Your task to perform on an android device: turn off javascript in the chrome app Image 0: 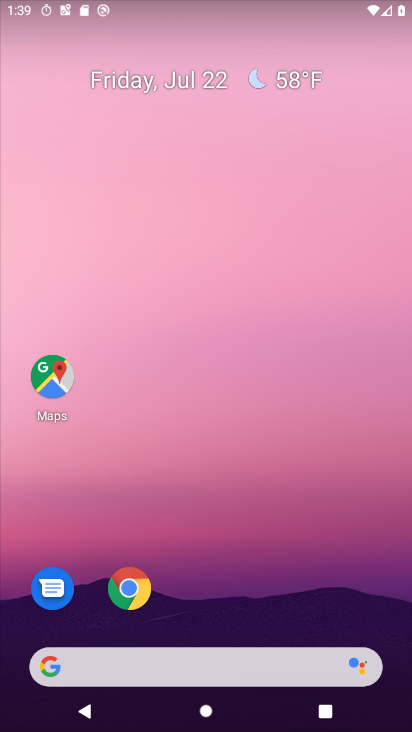
Step 0: press home button
Your task to perform on an android device: turn off javascript in the chrome app Image 1: 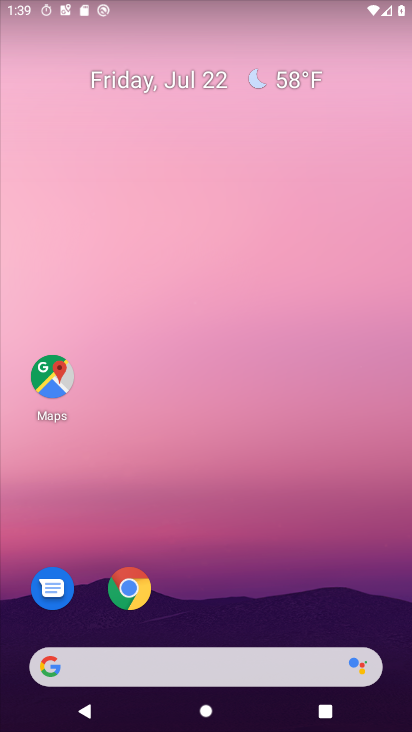
Step 1: drag from (286, 596) to (252, 283)
Your task to perform on an android device: turn off javascript in the chrome app Image 2: 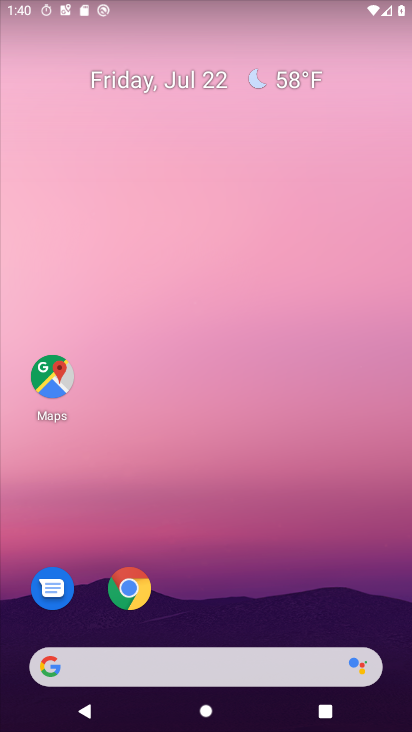
Step 2: drag from (301, 538) to (339, 35)
Your task to perform on an android device: turn off javascript in the chrome app Image 3: 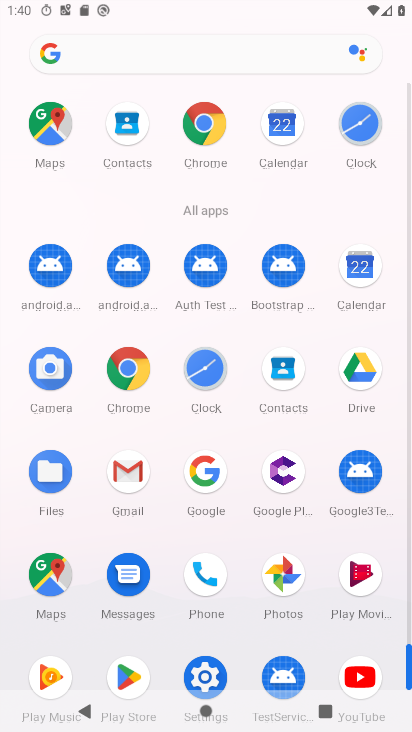
Step 3: click (127, 377)
Your task to perform on an android device: turn off javascript in the chrome app Image 4: 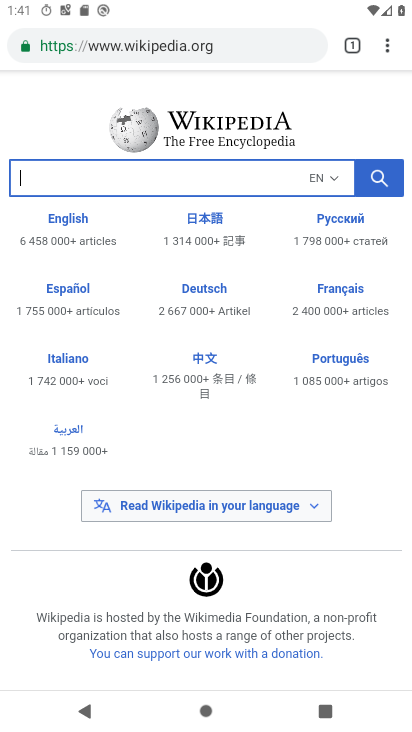
Step 4: drag from (376, 54) to (202, 552)
Your task to perform on an android device: turn off javascript in the chrome app Image 5: 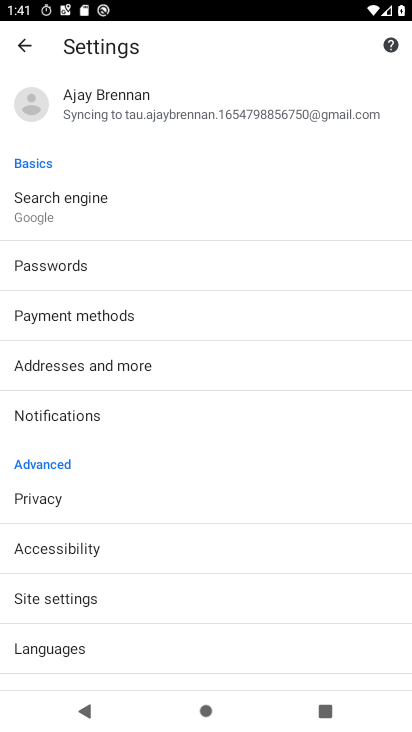
Step 5: drag from (100, 591) to (138, 355)
Your task to perform on an android device: turn off javascript in the chrome app Image 6: 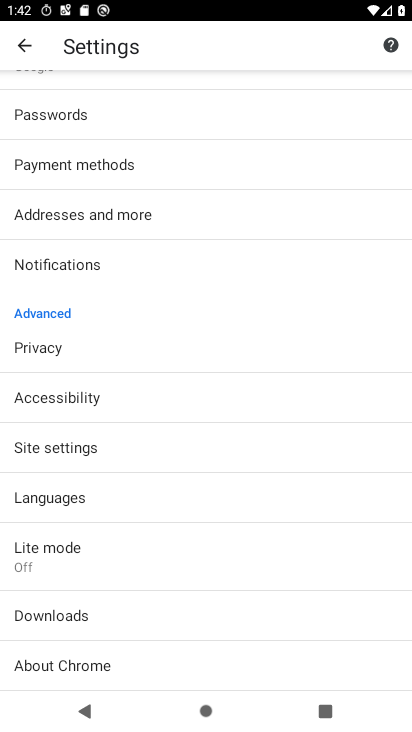
Step 6: drag from (86, 565) to (97, 280)
Your task to perform on an android device: turn off javascript in the chrome app Image 7: 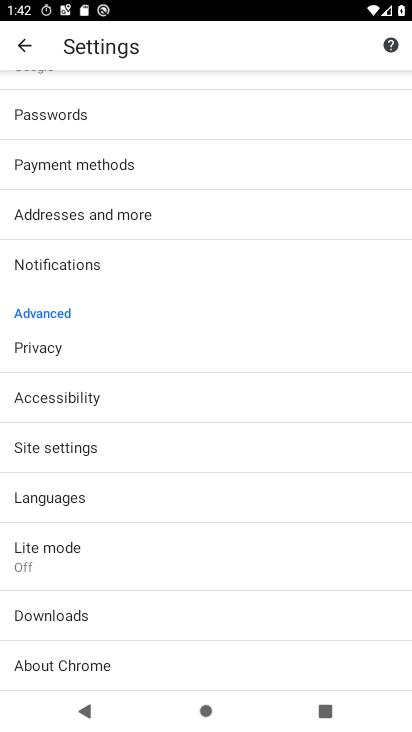
Step 7: drag from (108, 489) to (94, 240)
Your task to perform on an android device: turn off javascript in the chrome app Image 8: 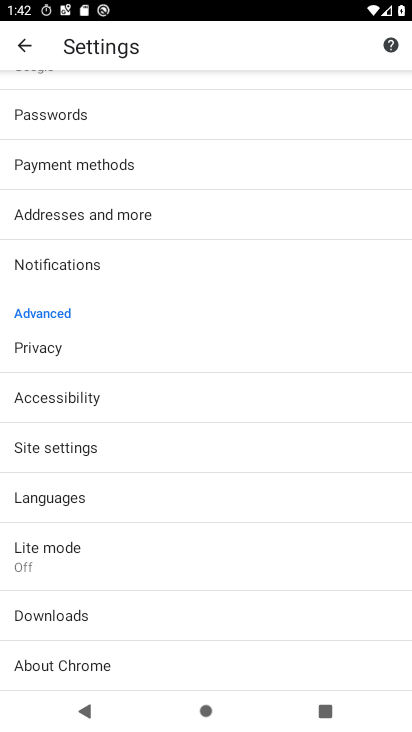
Step 8: click (74, 439)
Your task to perform on an android device: turn off javascript in the chrome app Image 9: 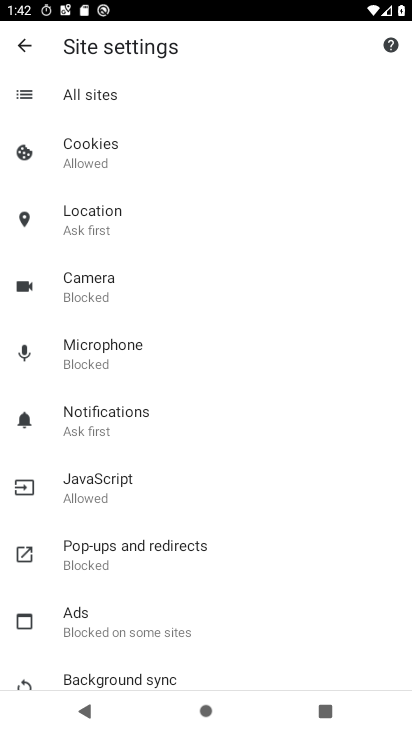
Step 9: click (89, 488)
Your task to perform on an android device: turn off javascript in the chrome app Image 10: 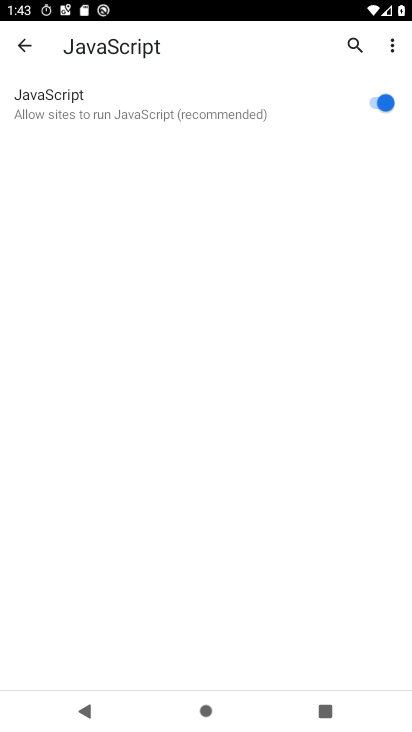
Step 10: click (222, 90)
Your task to perform on an android device: turn off javascript in the chrome app Image 11: 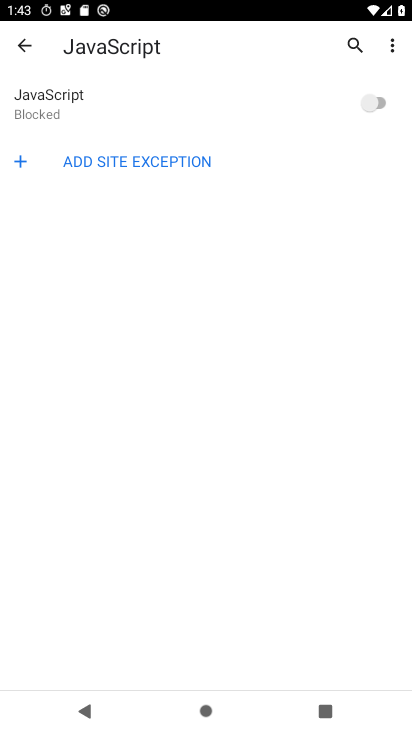
Step 11: task complete